Your task to perform on an android device: Open calendar and show me the third week of next month Image 0: 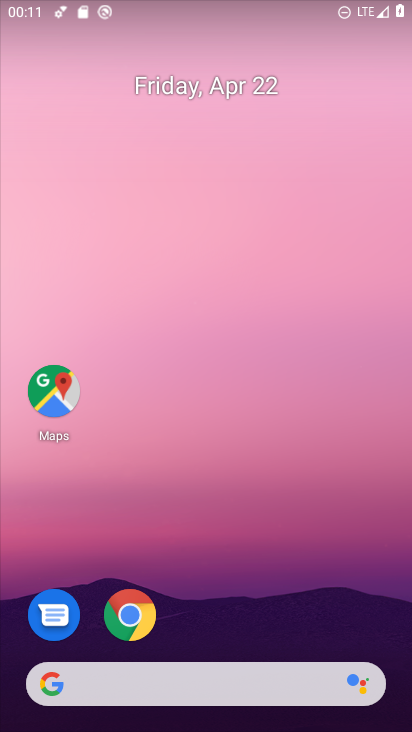
Step 0: press home button
Your task to perform on an android device: Open calendar and show me the third week of next month Image 1: 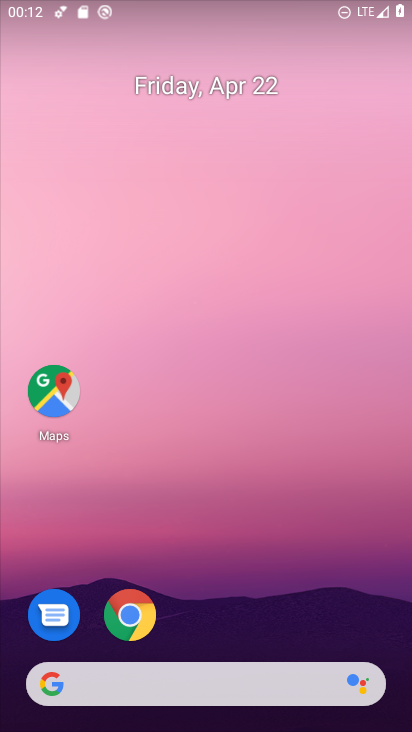
Step 1: drag from (217, 649) to (221, 0)
Your task to perform on an android device: Open calendar and show me the third week of next month Image 2: 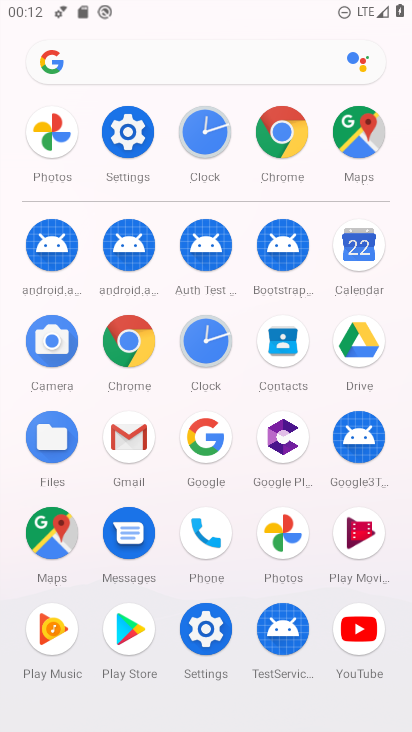
Step 2: click (357, 243)
Your task to perform on an android device: Open calendar and show me the third week of next month Image 3: 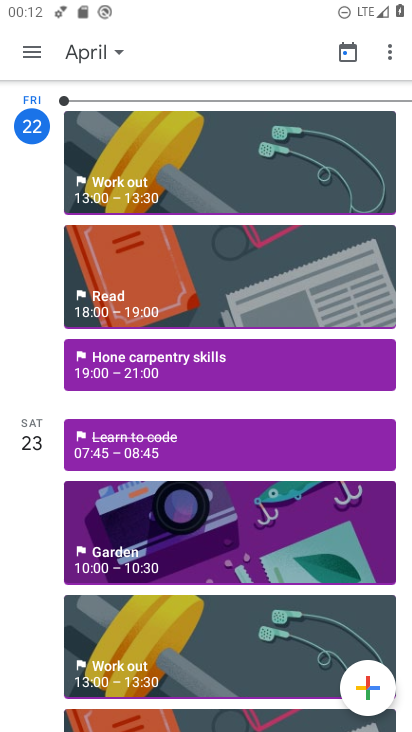
Step 3: click (27, 56)
Your task to perform on an android device: Open calendar and show me the third week of next month Image 4: 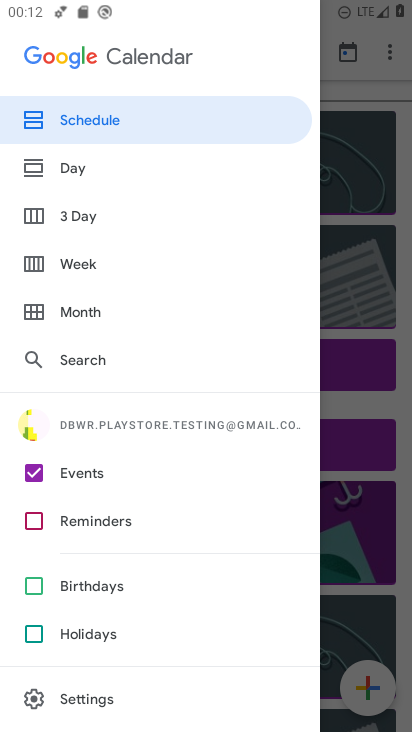
Step 4: click (58, 260)
Your task to perform on an android device: Open calendar and show me the third week of next month Image 5: 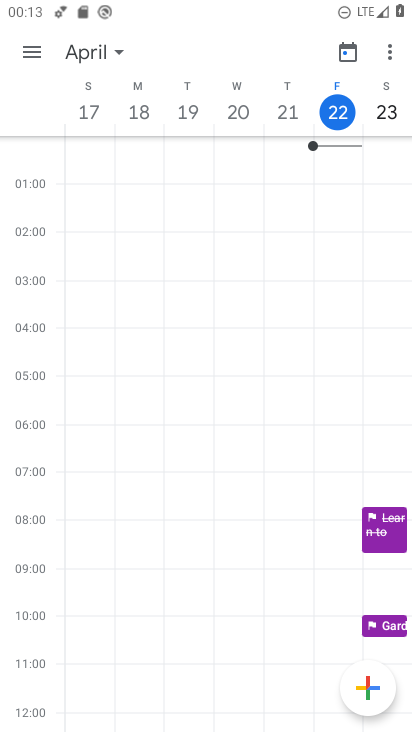
Step 5: drag from (387, 103) to (72, 96)
Your task to perform on an android device: Open calendar and show me the third week of next month Image 6: 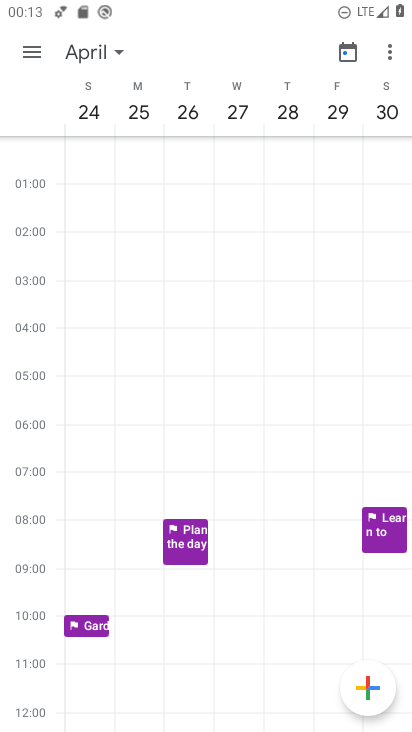
Step 6: drag from (322, 114) to (89, 116)
Your task to perform on an android device: Open calendar and show me the third week of next month Image 7: 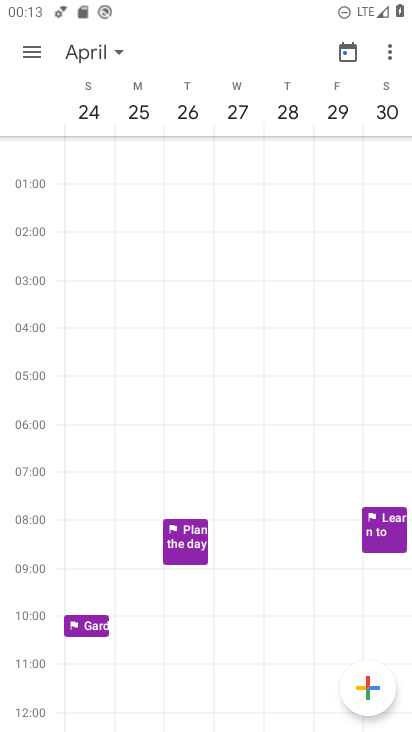
Step 7: drag from (396, 115) to (16, 114)
Your task to perform on an android device: Open calendar and show me the third week of next month Image 8: 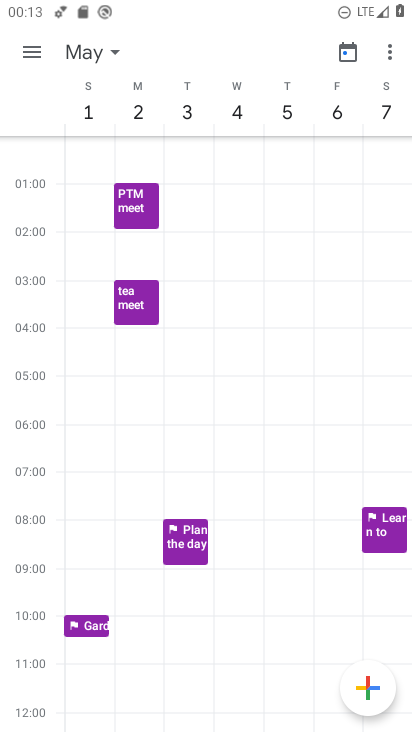
Step 8: drag from (389, 106) to (83, 103)
Your task to perform on an android device: Open calendar and show me the third week of next month Image 9: 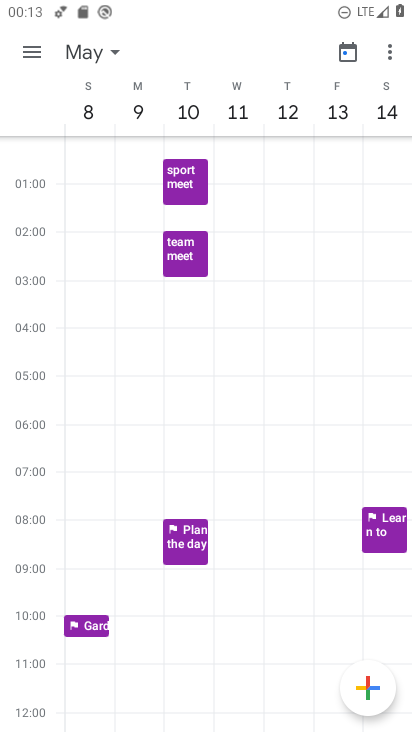
Step 9: drag from (387, 106) to (71, 105)
Your task to perform on an android device: Open calendar and show me the third week of next month Image 10: 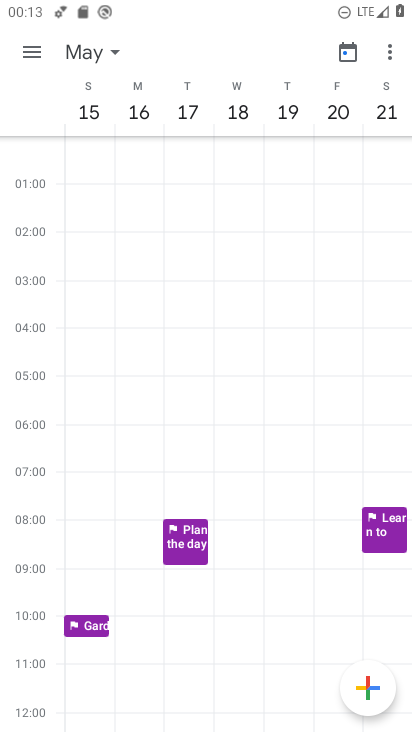
Step 10: click (88, 107)
Your task to perform on an android device: Open calendar and show me the third week of next month Image 11: 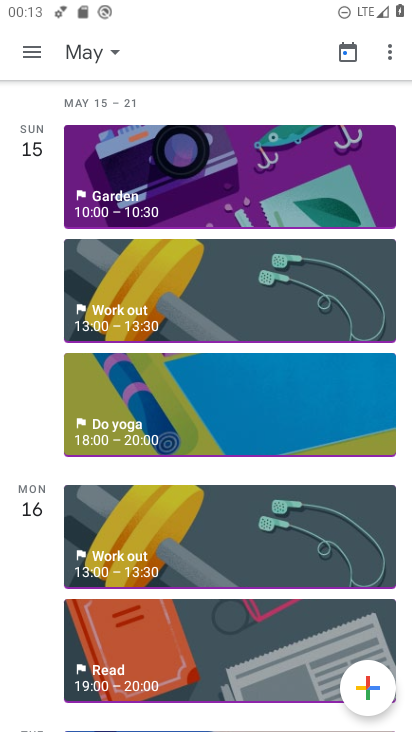
Step 11: task complete